Your task to perform on an android device: make emails show in primary in the gmail app Image 0: 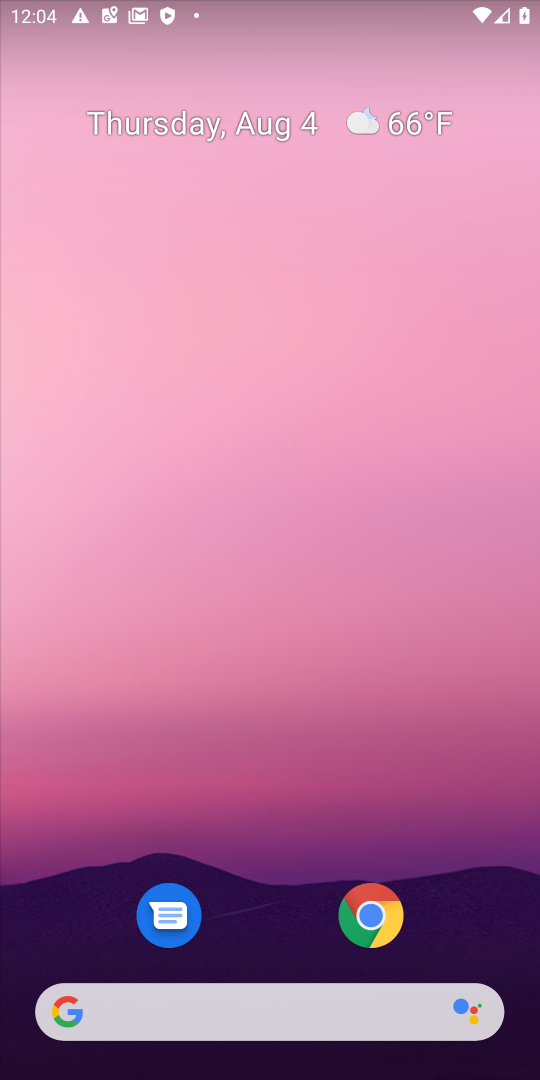
Step 0: drag from (286, 792) to (303, 89)
Your task to perform on an android device: make emails show in primary in the gmail app Image 1: 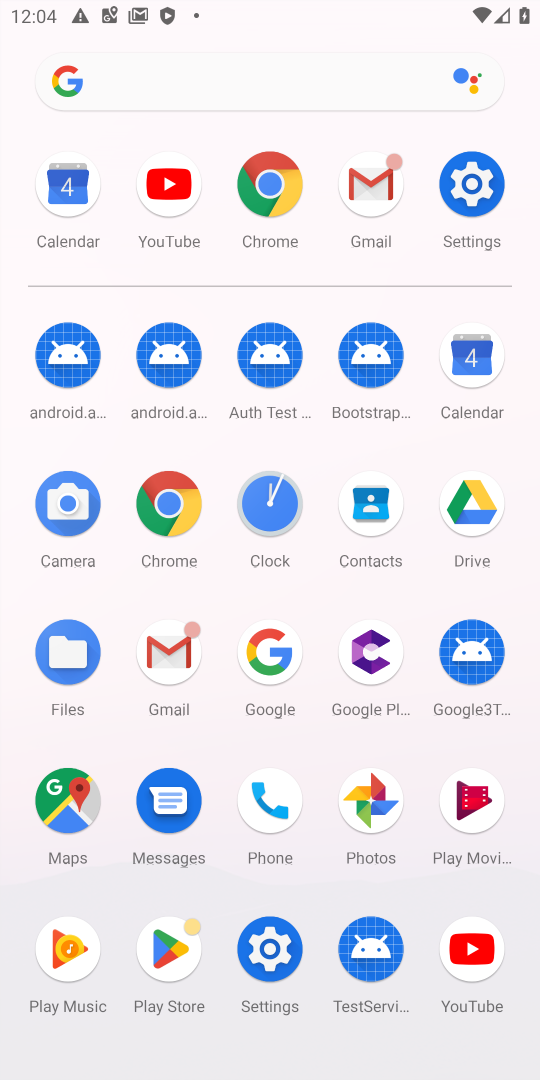
Step 1: click (388, 184)
Your task to perform on an android device: make emails show in primary in the gmail app Image 2: 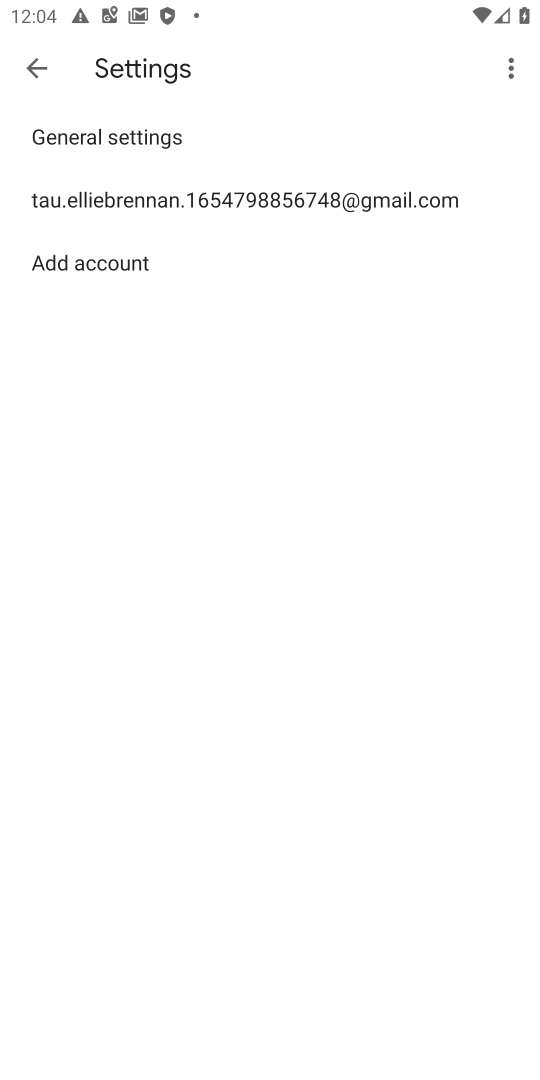
Step 2: click (339, 199)
Your task to perform on an android device: make emails show in primary in the gmail app Image 3: 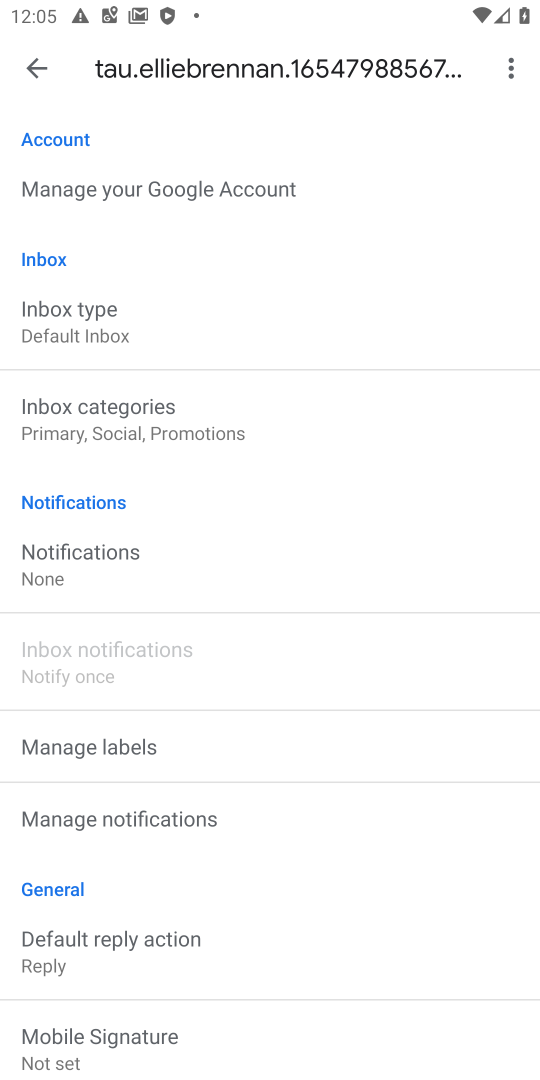
Step 3: click (124, 440)
Your task to perform on an android device: make emails show in primary in the gmail app Image 4: 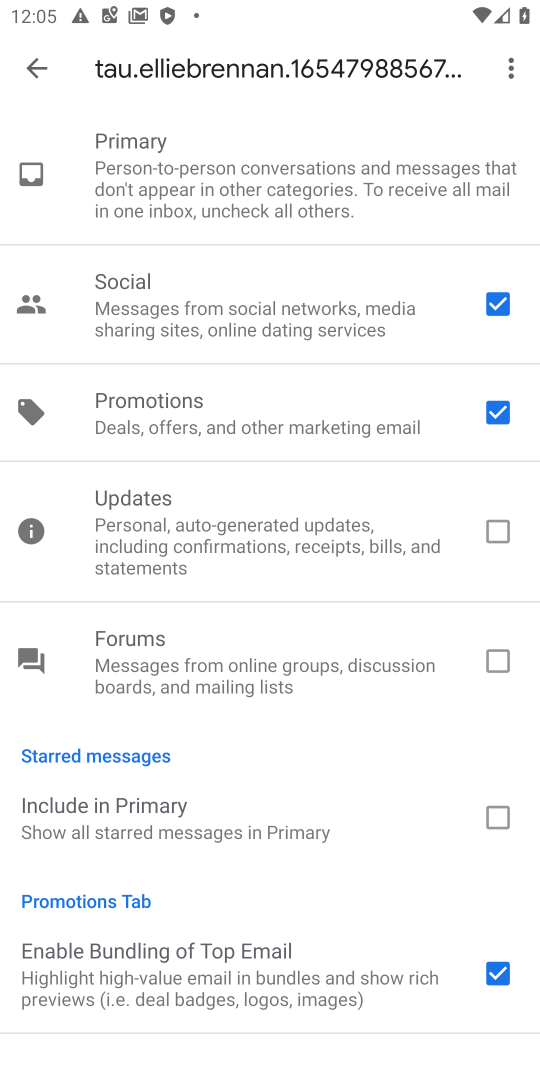
Step 4: click (491, 309)
Your task to perform on an android device: make emails show in primary in the gmail app Image 5: 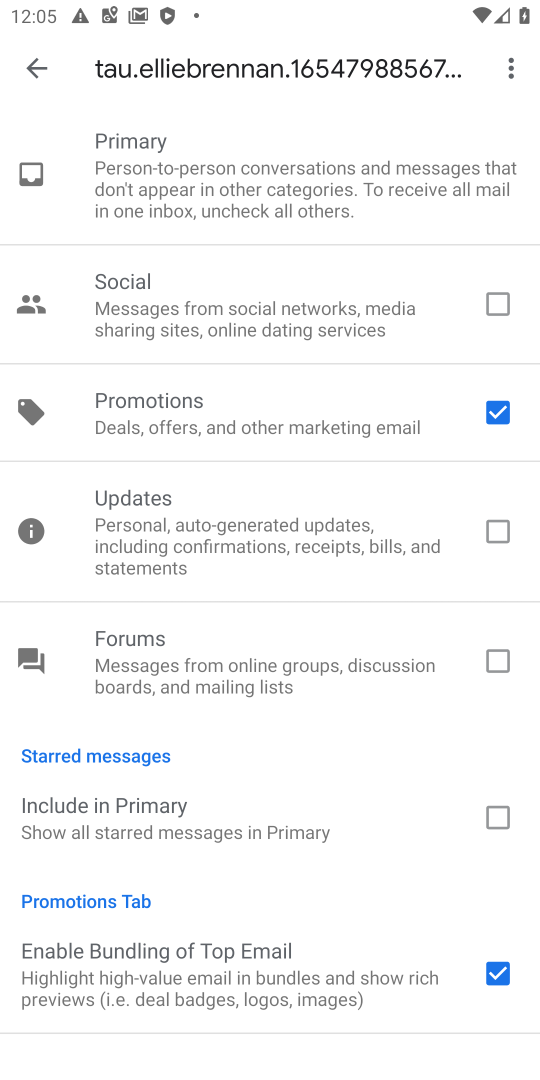
Step 5: click (509, 414)
Your task to perform on an android device: make emails show in primary in the gmail app Image 6: 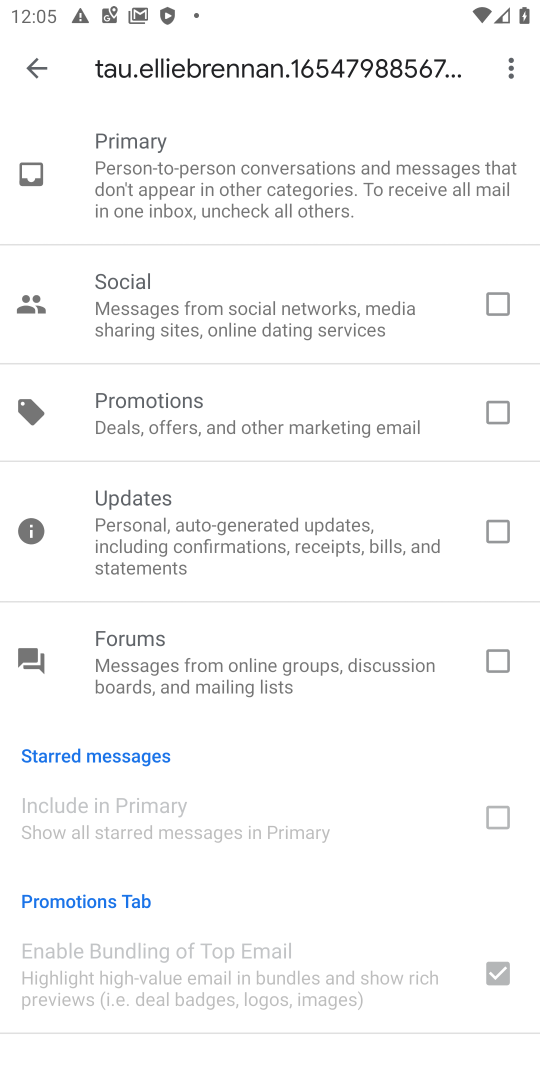
Step 6: task complete